Your task to perform on an android device: Open display settings Image 0: 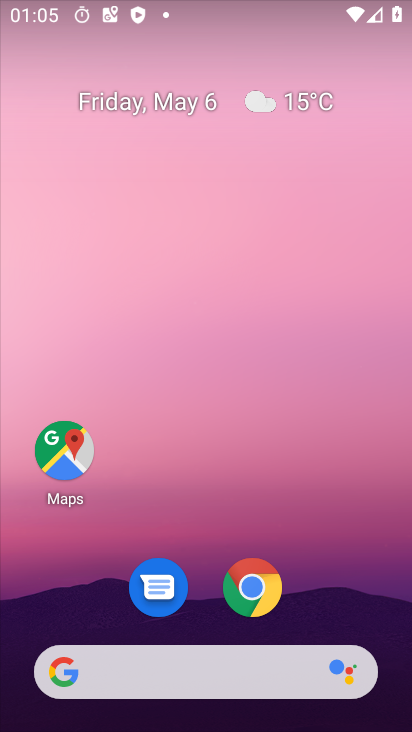
Step 0: drag from (364, 568) to (378, 238)
Your task to perform on an android device: Open display settings Image 1: 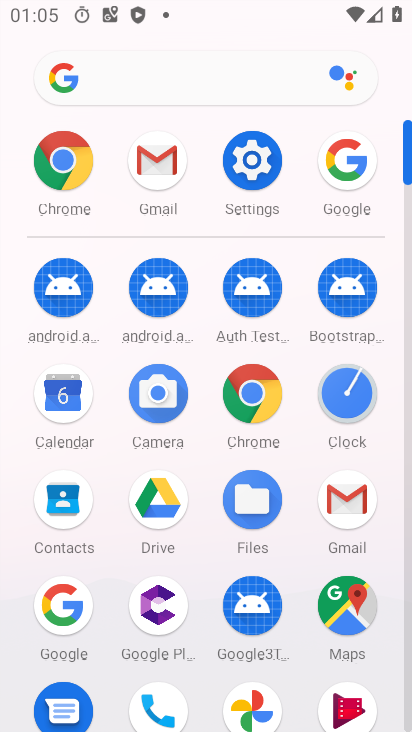
Step 1: click (258, 169)
Your task to perform on an android device: Open display settings Image 2: 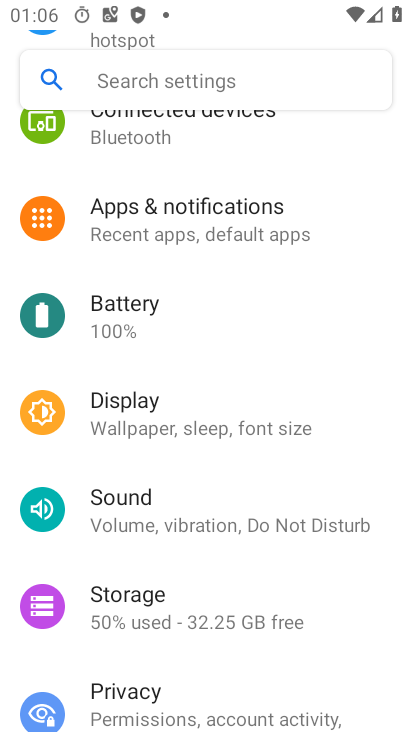
Step 2: click (116, 420)
Your task to perform on an android device: Open display settings Image 3: 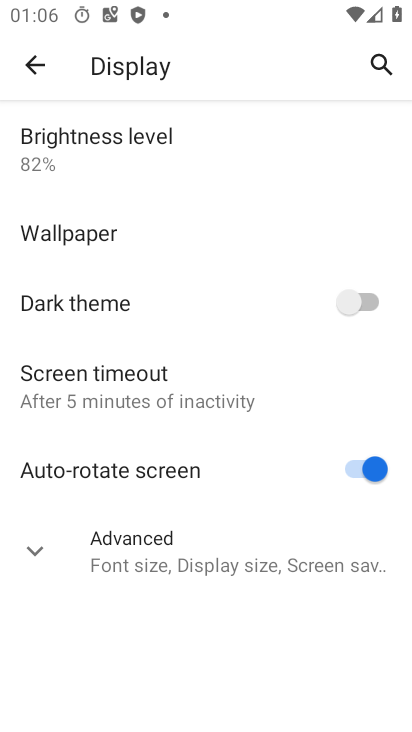
Step 3: task complete